Your task to perform on an android device: check storage Image 0: 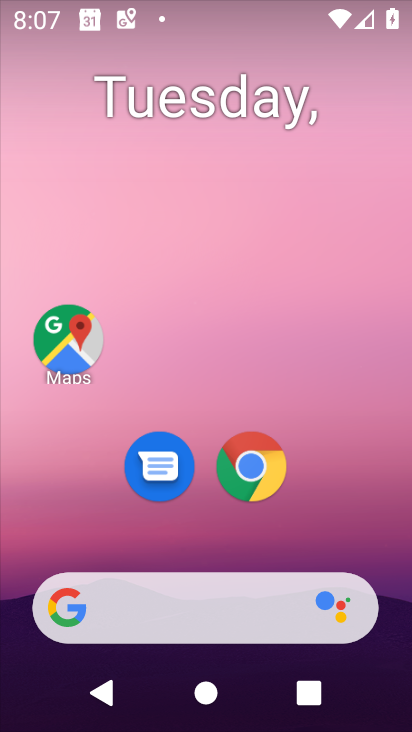
Step 0: drag from (339, 530) to (347, 77)
Your task to perform on an android device: check storage Image 1: 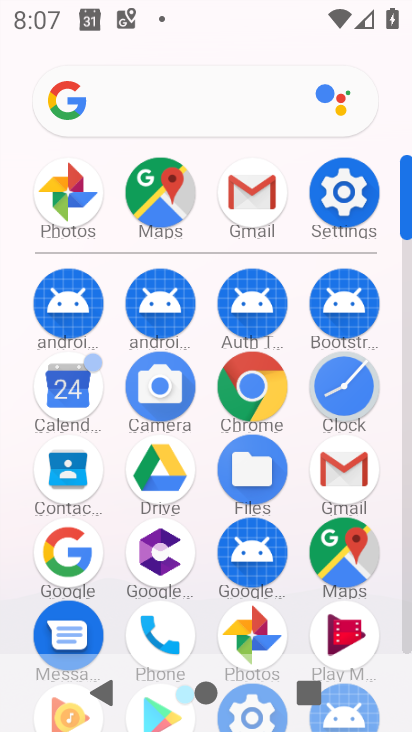
Step 1: click (341, 189)
Your task to perform on an android device: check storage Image 2: 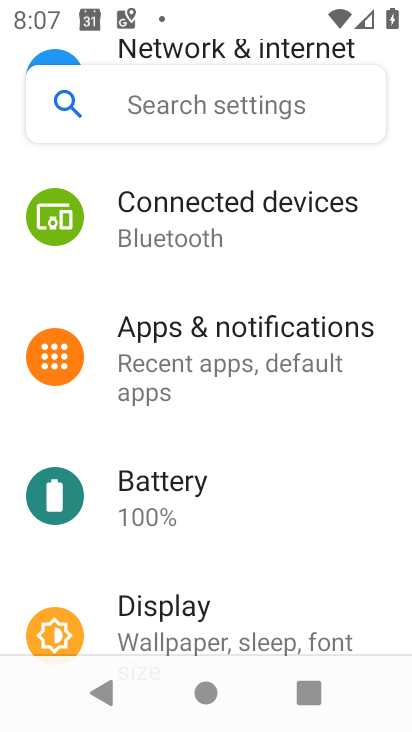
Step 2: drag from (153, 517) to (217, 196)
Your task to perform on an android device: check storage Image 3: 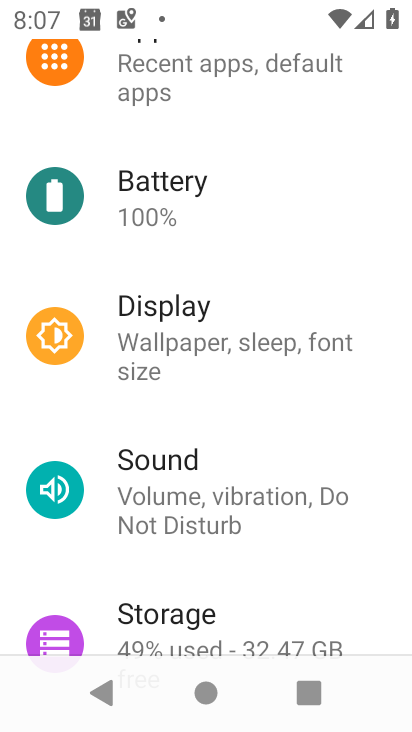
Step 3: drag from (201, 552) to (231, 279)
Your task to perform on an android device: check storage Image 4: 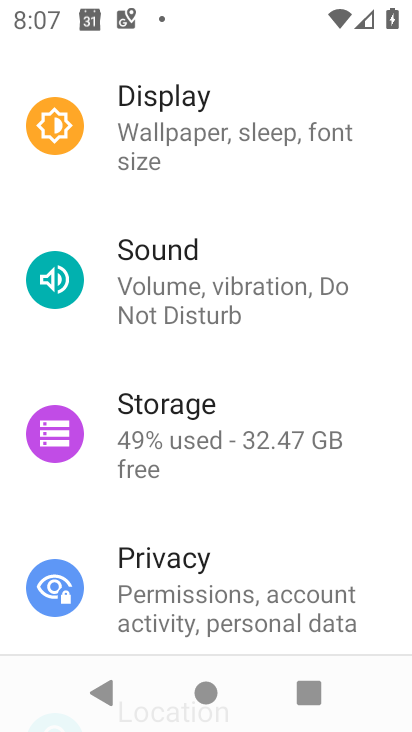
Step 4: click (202, 435)
Your task to perform on an android device: check storage Image 5: 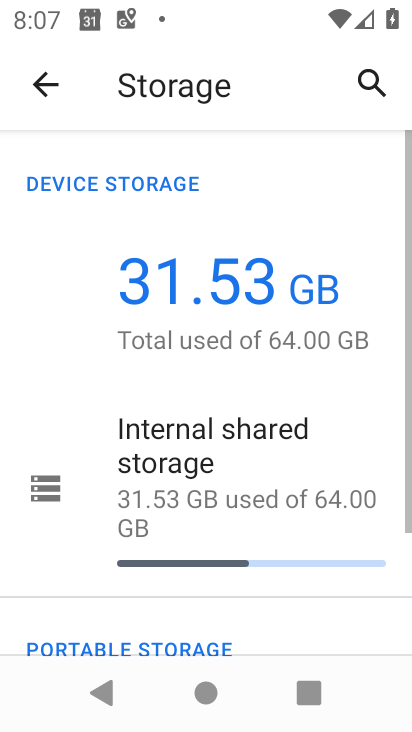
Step 5: task complete